Your task to perform on an android device: Open settings on Google Maps Image 0: 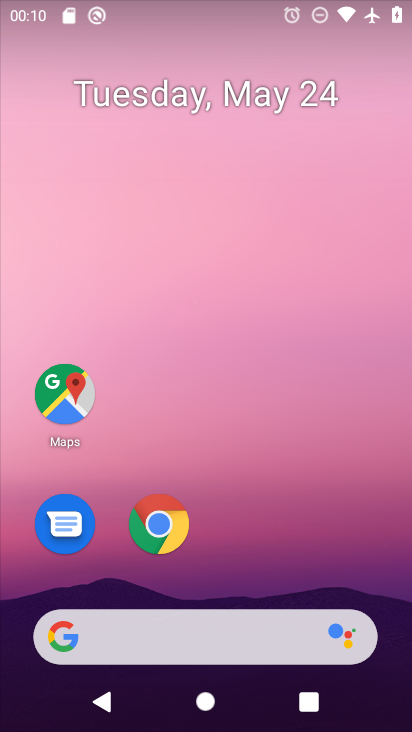
Step 0: click (63, 422)
Your task to perform on an android device: Open settings on Google Maps Image 1: 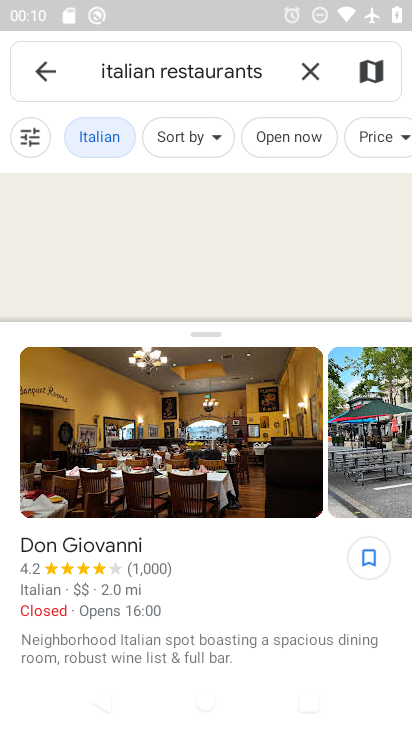
Step 1: click (45, 81)
Your task to perform on an android device: Open settings on Google Maps Image 2: 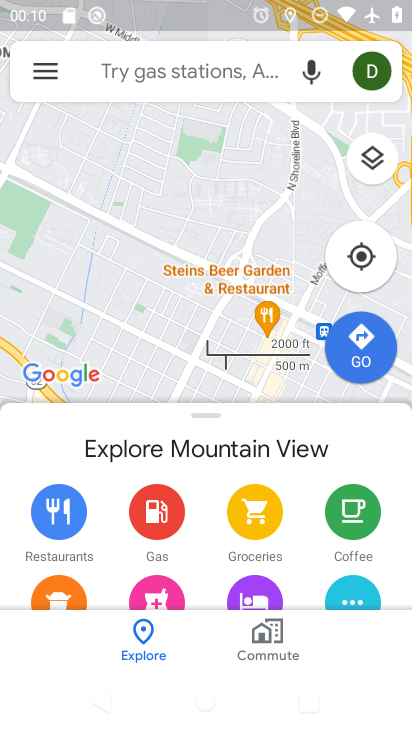
Step 2: click (42, 82)
Your task to perform on an android device: Open settings on Google Maps Image 3: 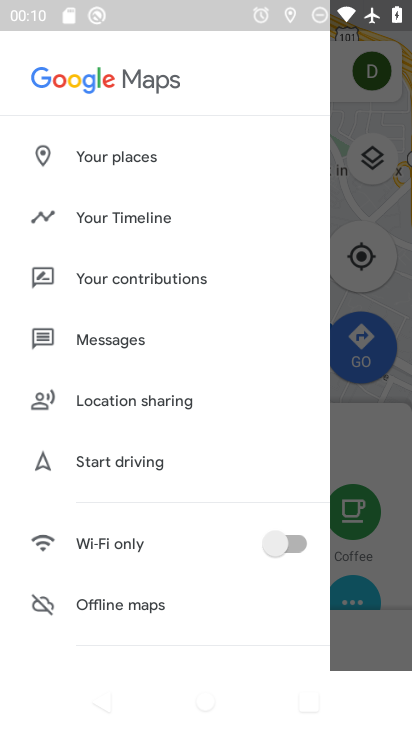
Step 3: drag from (164, 578) to (186, 231)
Your task to perform on an android device: Open settings on Google Maps Image 4: 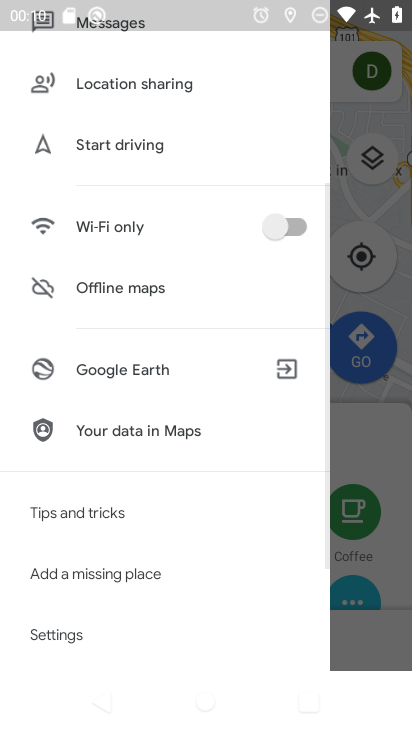
Step 4: click (110, 627)
Your task to perform on an android device: Open settings on Google Maps Image 5: 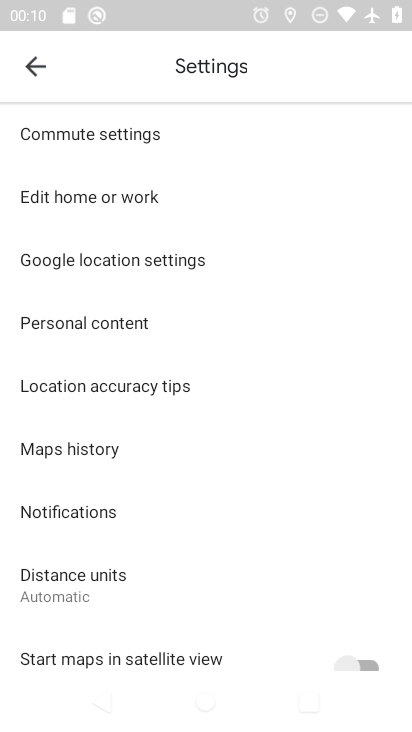
Step 5: task complete